Your task to perform on an android device: What is the recent news? Image 0: 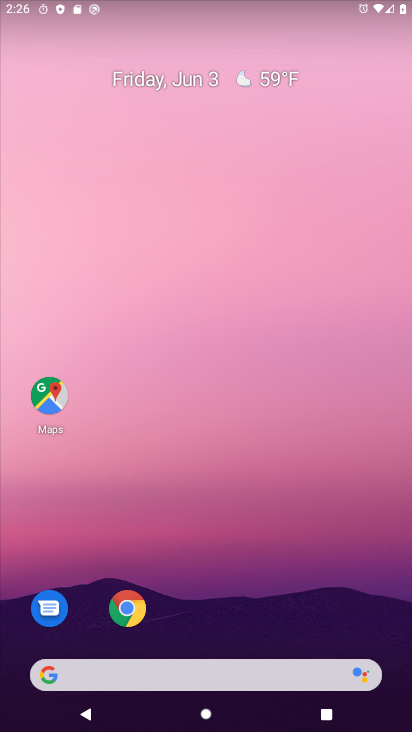
Step 0: drag from (284, 667) to (210, 123)
Your task to perform on an android device: What is the recent news? Image 1: 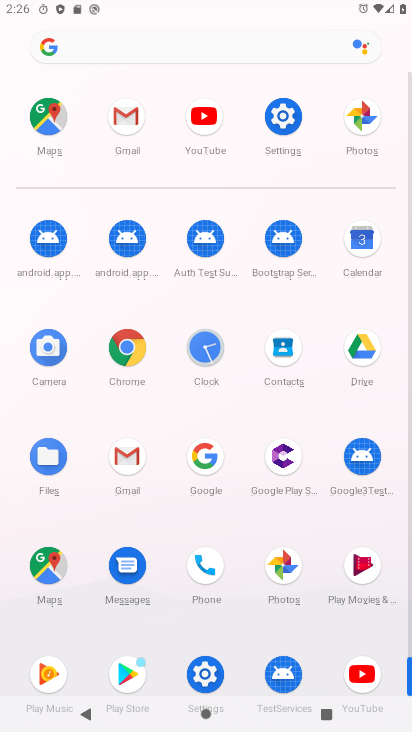
Step 1: click (214, 453)
Your task to perform on an android device: What is the recent news? Image 2: 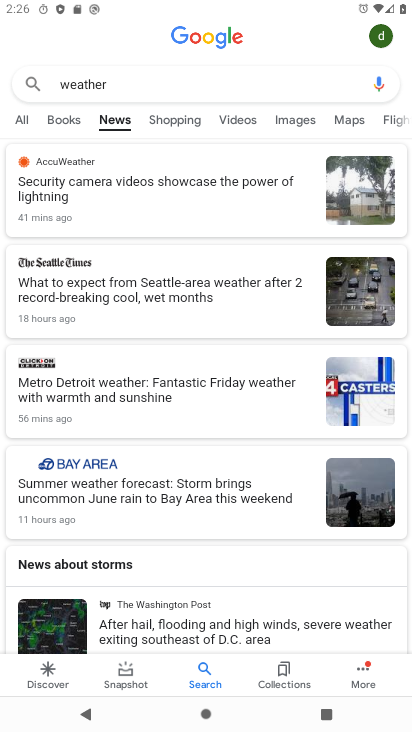
Step 2: click (107, 32)
Your task to perform on an android device: What is the recent news? Image 3: 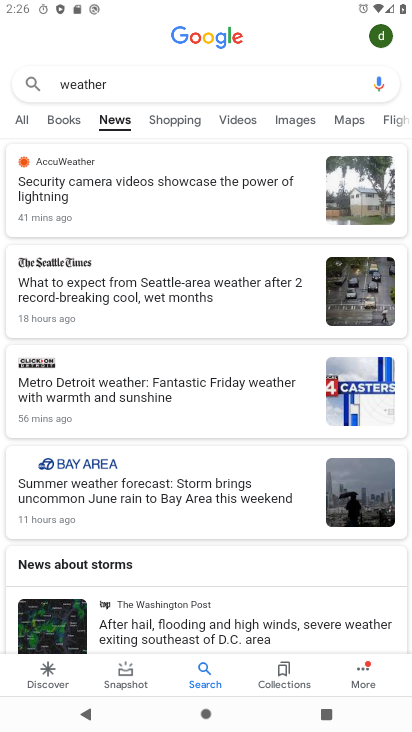
Step 3: click (40, 688)
Your task to perform on an android device: What is the recent news? Image 4: 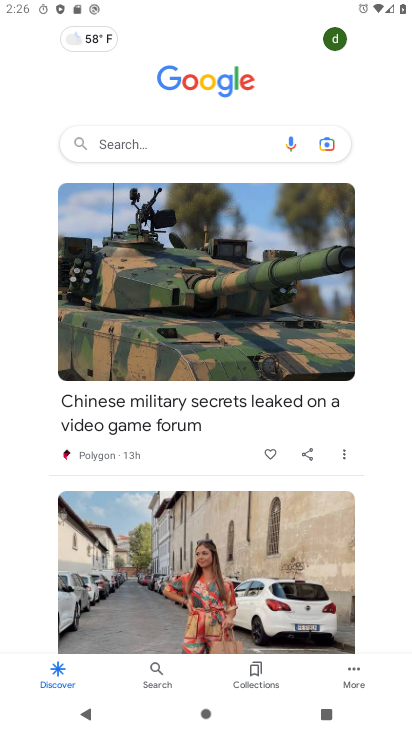
Step 4: task complete